Your task to perform on an android device: search for starred emails in the gmail app Image 0: 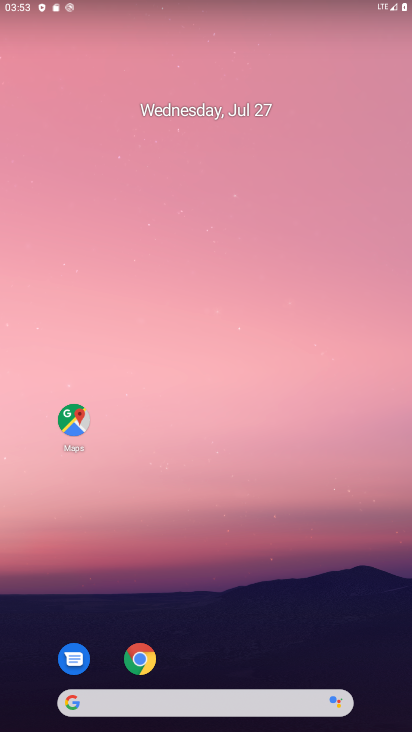
Step 0: drag from (235, 636) to (268, 1)
Your task to perform on an android device: search for starred emails in the gmail app Image 1: 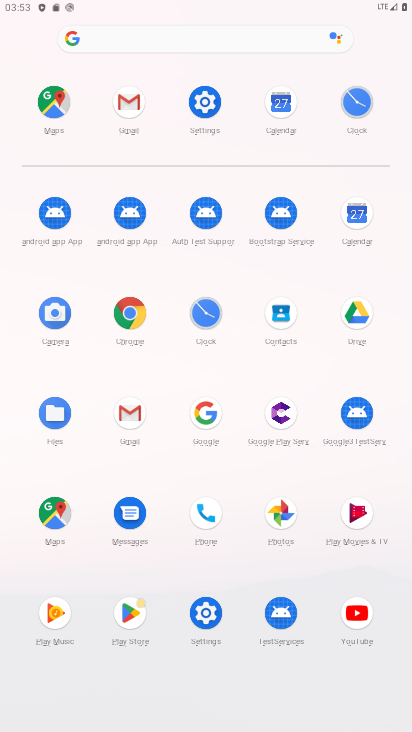
Step 1: click (123, 103)
Your task to perform on an android device: search for starred emails in the gmail app Image 2: 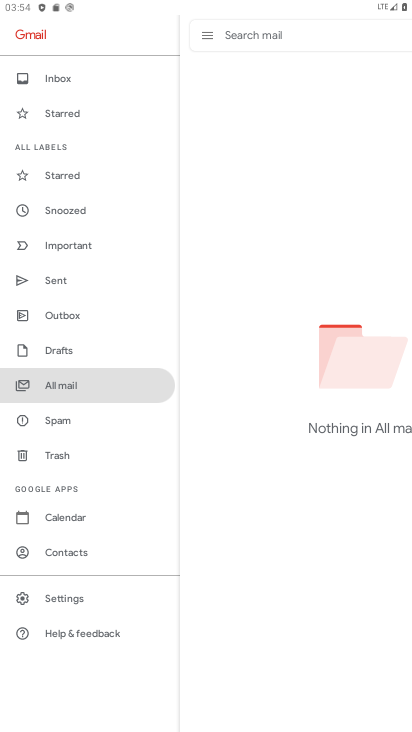
Step 2: click (50, 172)
Your task to perform on an android device: search for starred emails in the gmail app Image 3: 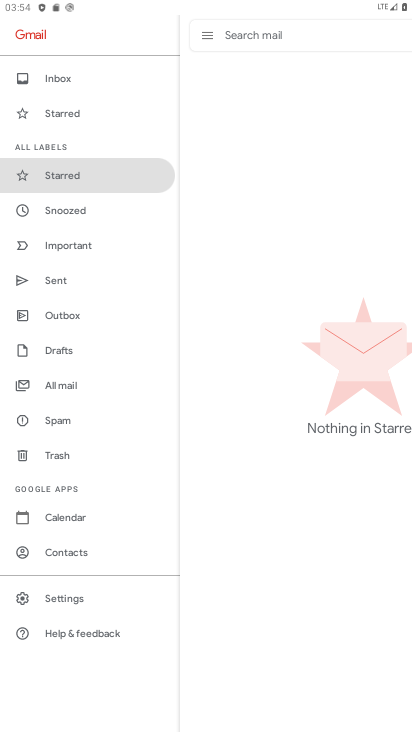
Step 3: task complete